Your task to perform on an android device: turn on data saver in the chrome app Image 0: 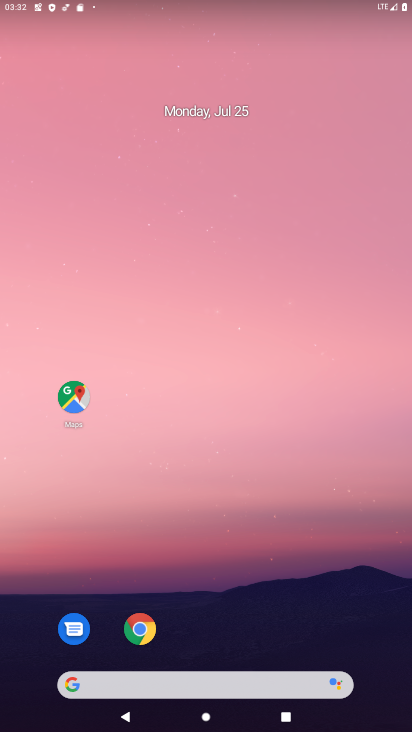
Step 0: click (146, 633)
Your task to perform on an android device: turn on data saver in the chrome app Image 1: 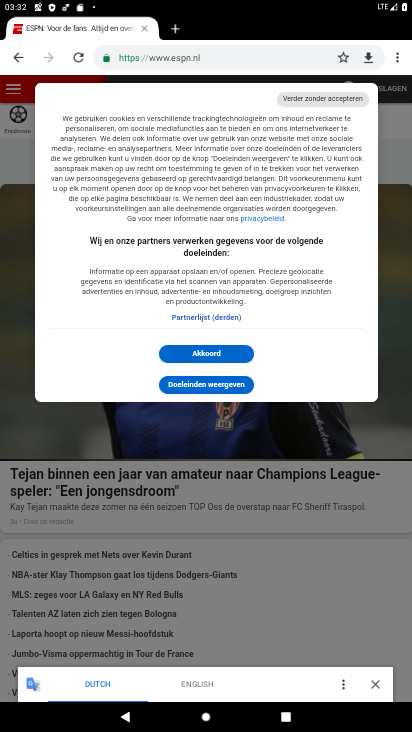
Step 1: drag from (399, 56) to (287, 384)
Your task to perform on an android device: turn on data saver in the chrome app Image 2: 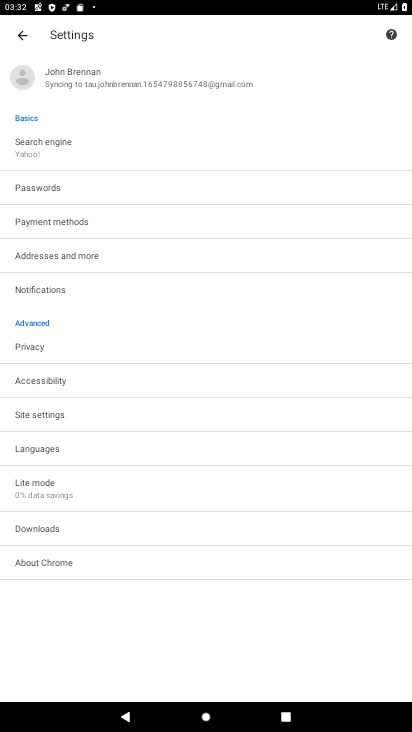
Step 2: click (54, 477)
Your task to perform on an android device: turn on data saver in the chrome app Image 3: 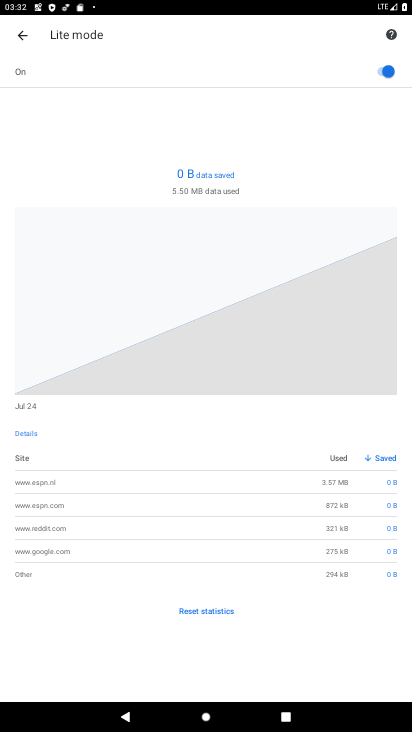
Step 3: task complete